Your task to perform on an android device: Open settings on Google Maps Image 0: 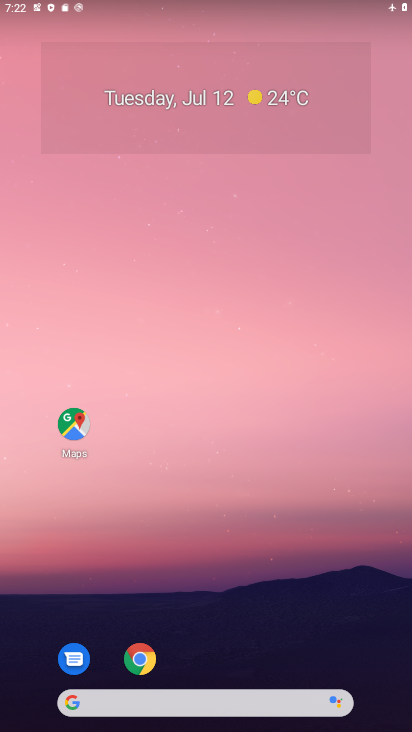
Step 0: drag from (350, 655) to (371, 578)
Your task to perform on an android device: Open settings on Google Maps Image 1: 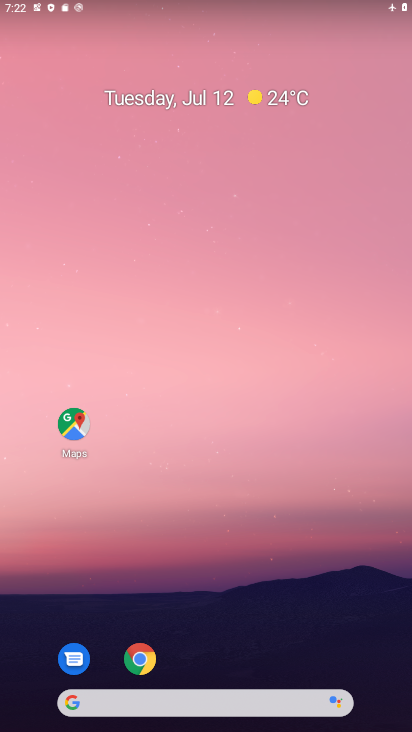
Step 1: drag from (369, 702) to (254, 80)
Your task to perform on an android device: Open settings on Google Maps Image 2: 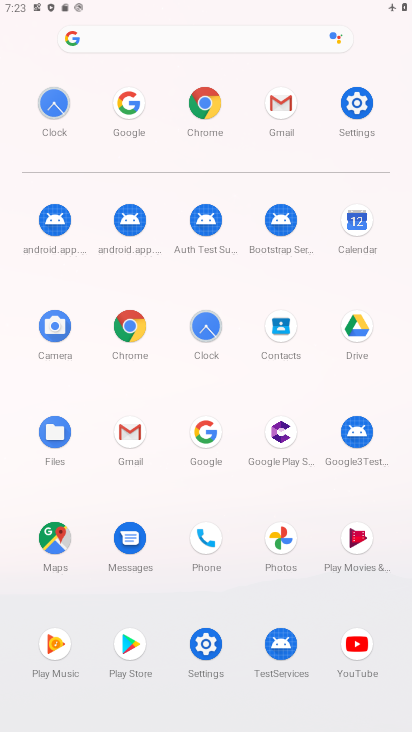
Step 2: click (59, 544)
Your task to perform on an android device: Open settings on Google Maps Image 3: 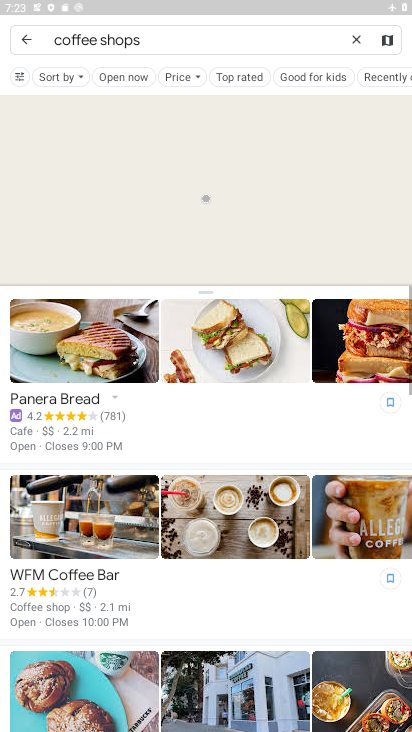
Step 3: click (21, 38)
Your task to perform on an android device: Open settings on Google Maps Image 4: 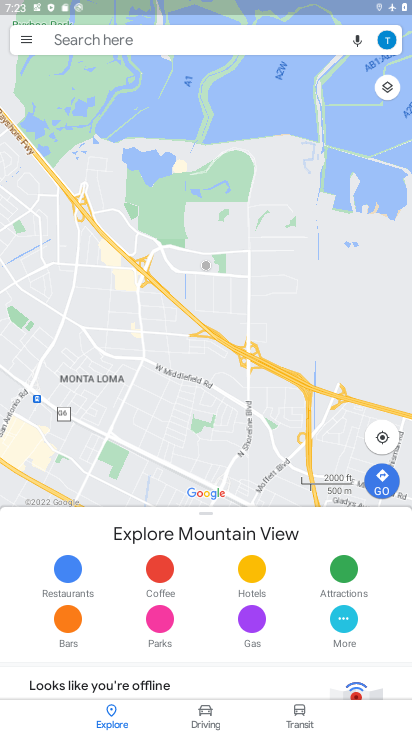
Step 4: click (22, 43)
Your task to perform on an android device: Open settings on Google Maps Image 5: 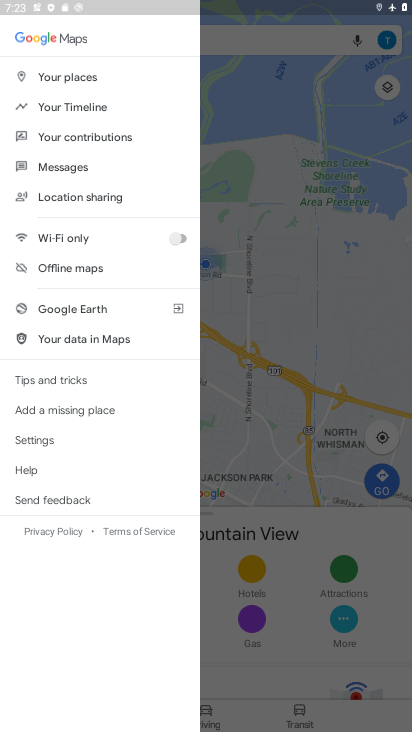
Step 5: click (26, 41)
Your task to perform on an android device: Open settings on Google Maps Image 6: 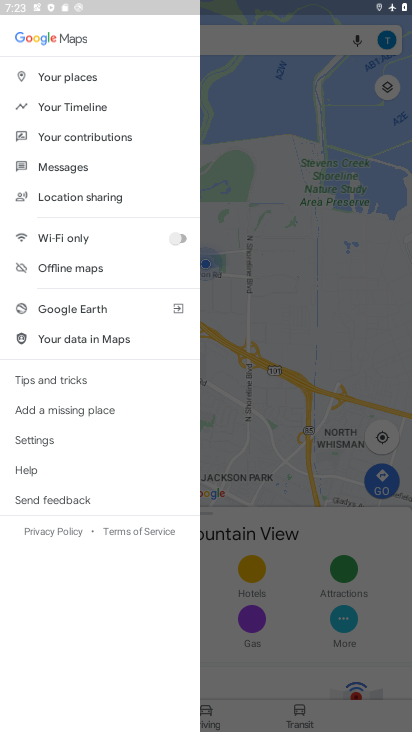
Step 6: click (39, 440)
Your task to perform on an android device: Open settings on Google Maps Image 7: 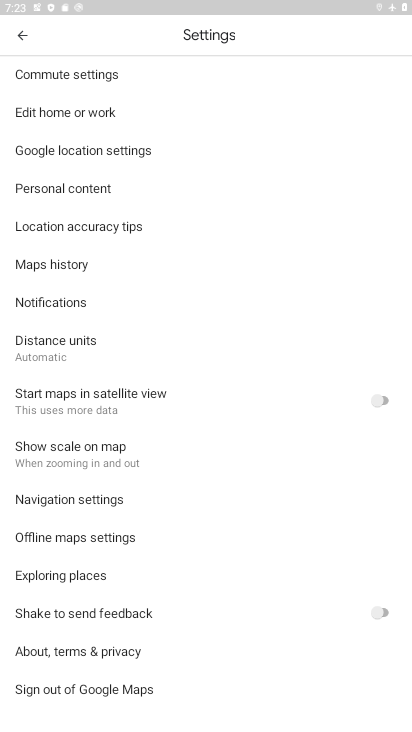
Step 7: task complete